Your task to perform on an android device: set the stopwatch Image 0: 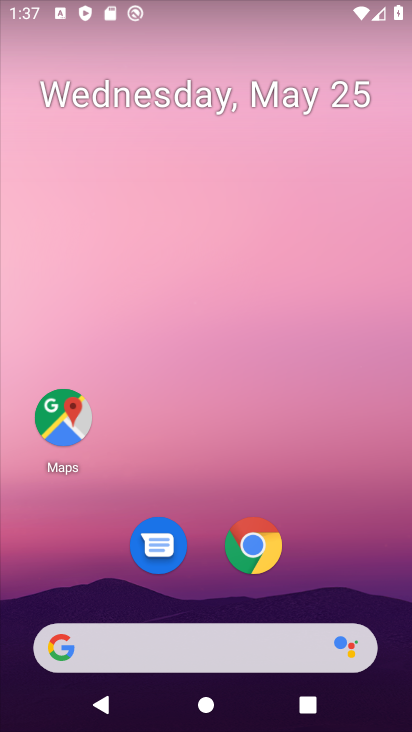
Step 0: task complete